Your task to perform on an android device: move an email to a new category in the gmail app Image 0: 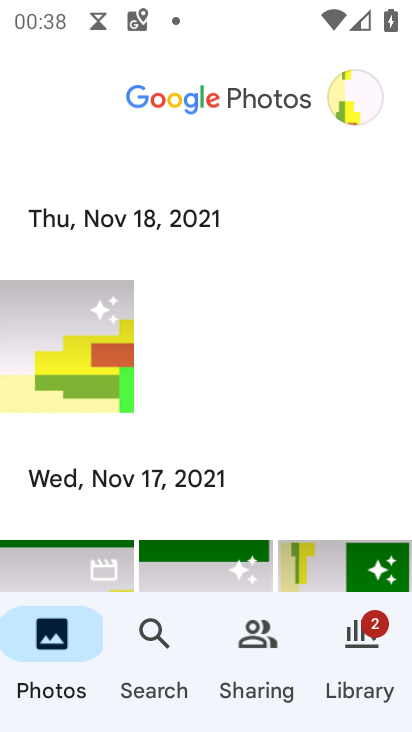
Step 0: press home button
Your task to perform on an android device: move an email to a new category in the gmail app Image 1: 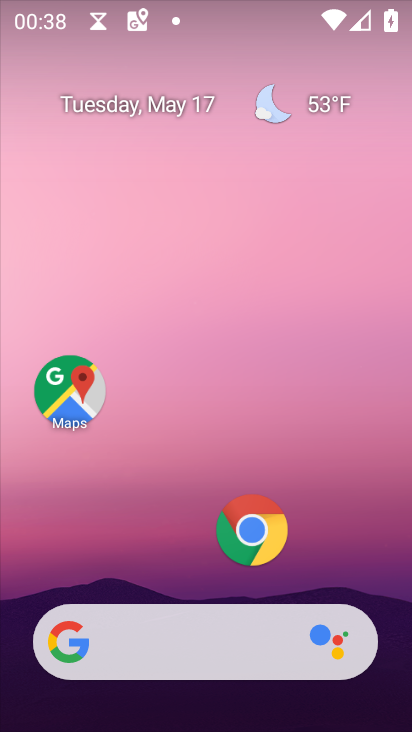
Step 1: drag from (338, 578) to (332, 512)
Your task to perform on an android device: move an email to a new category in the gmail app Image 2: 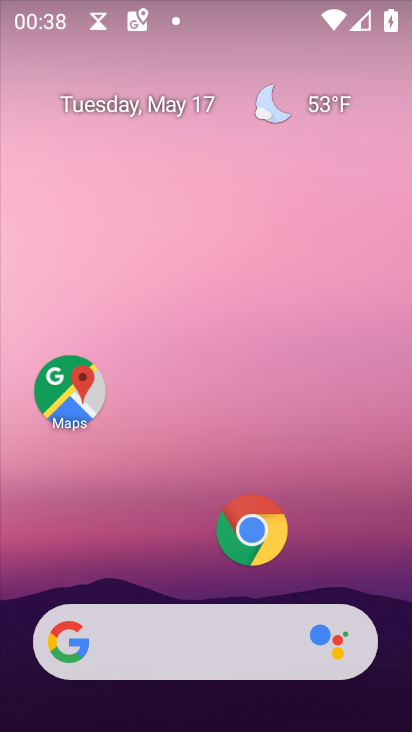
Step 2: drag from (175, 486) to (193, 164)
Your task to perform on an android device: move an email to a new category in the gmail app Image 3: 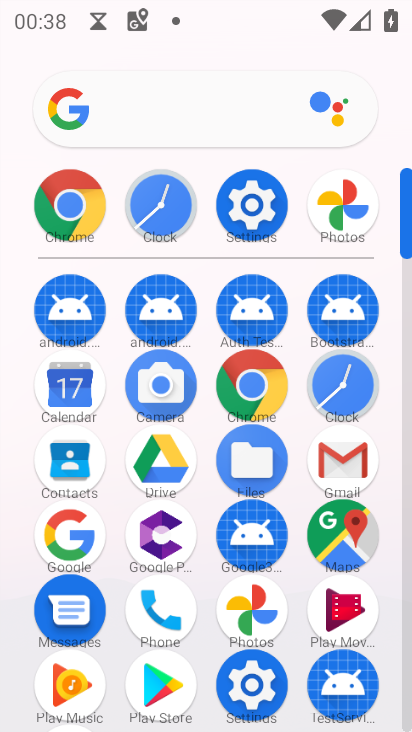
Step 3: click (344, 466)
Your task to perform on an android device: move an email to a new category in the gmail app Image 4: 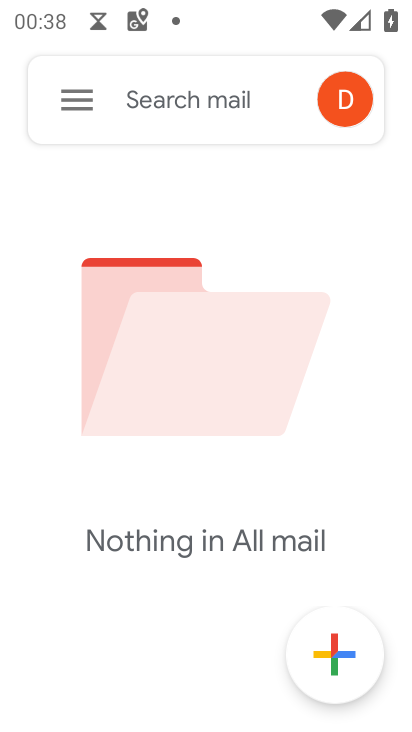
Step 4: click (71, 93)
Your task to perform on an android device: move an email to a new category in the gmail app Image 5: 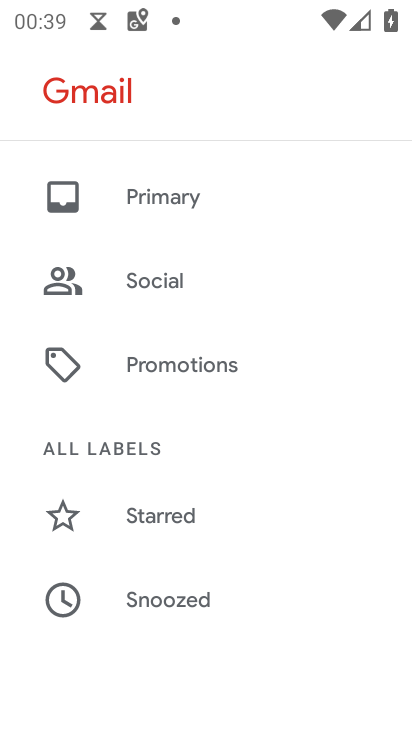
Step 5: drag from (276, 599) to (266, 304)
Your task to perform on an android device: move an email to a new category in the gmail app Image 6: 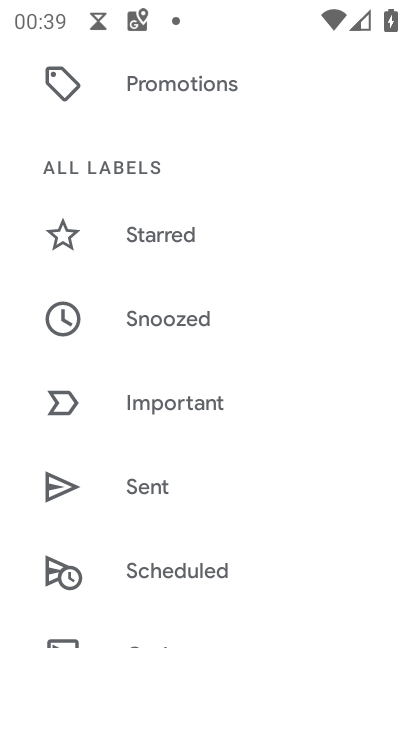
Step 6: drag from (244, 632) to (349, 189)
Your task to perform on an android device: move an email to a new category in the gmail app Image 7: 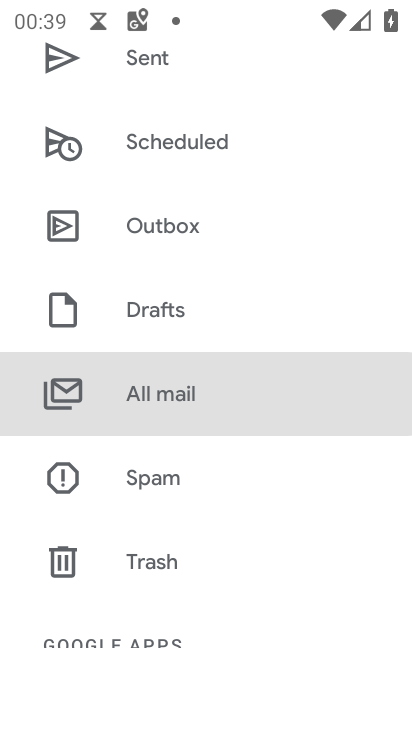
Step 7: click (195, 389)
Your task to perform on an android device: move an email to a new category in the gmail app Image 8: 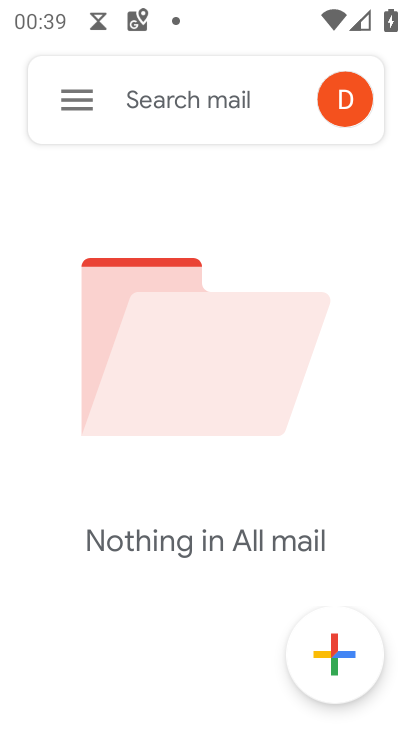
Step 8: task complete